Your task to perform on an android device: What's the weather? Image 0: 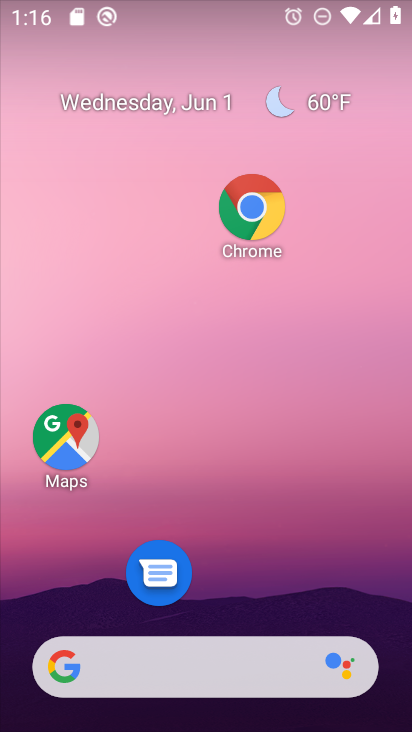
Step 0: drag from (214, 606) to (155, 154)
Your task to perform on an android device: What's the weather? Image 1: 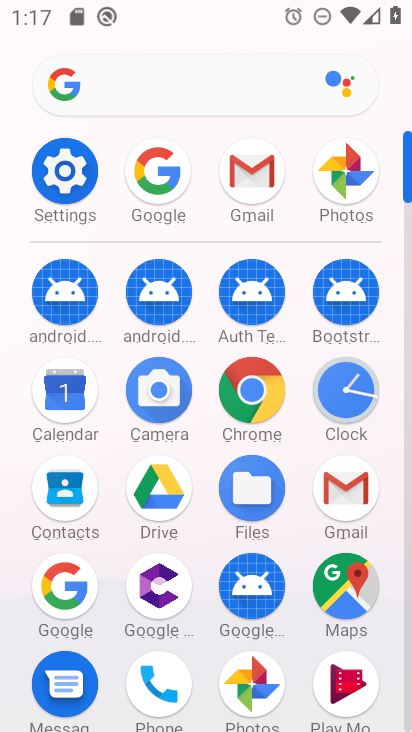
Step 1: click (64, 585)
Your task to perform on an android device: What's the weather? Image 2: 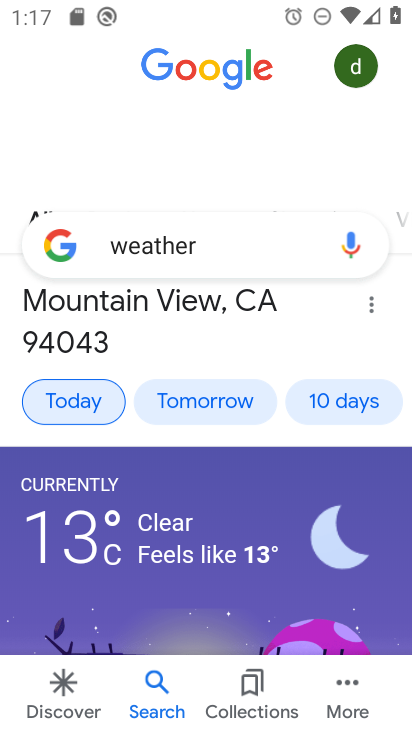
Step 2: task complete